Your task to perform on an android device: check the backup settings in the google photos Image 0: 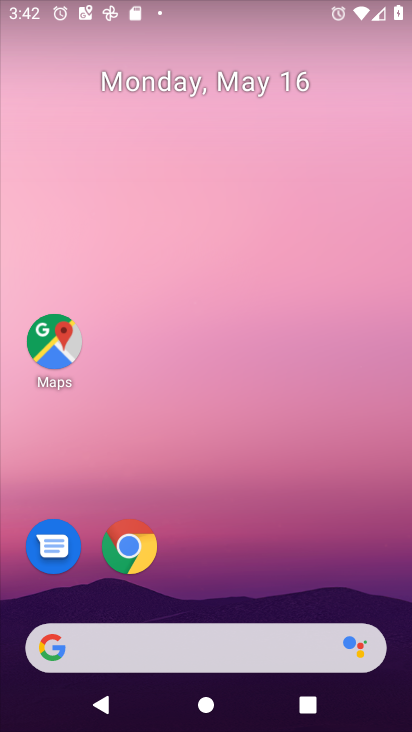
Step 0: drag from (352, 604) to (363, 207)
Your task to perform on an android device: check the backup settings in the google photos Image 1: 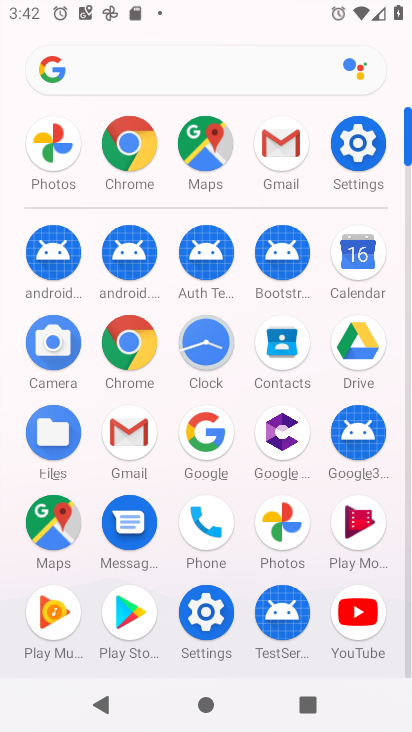
Step 1: click (293, 524)
Your task to perform on an android device: check the backup settings in the google photos Image 2: 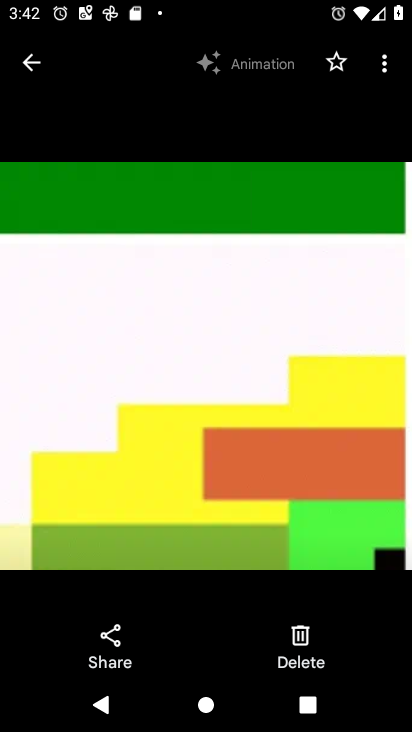
Step 2: click (31, 59)
Your task to perform on an android device: check the backup settings in the google photos Image 3: 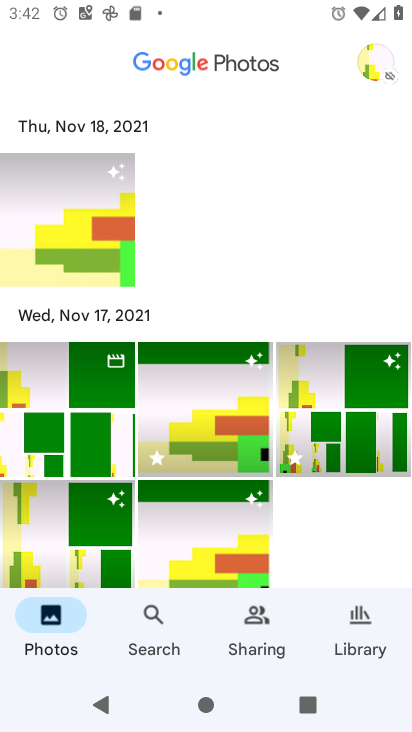
Step 3: click (376, 64)
Your task to perform on an android device: check the backup settings in the google photos Image 4: 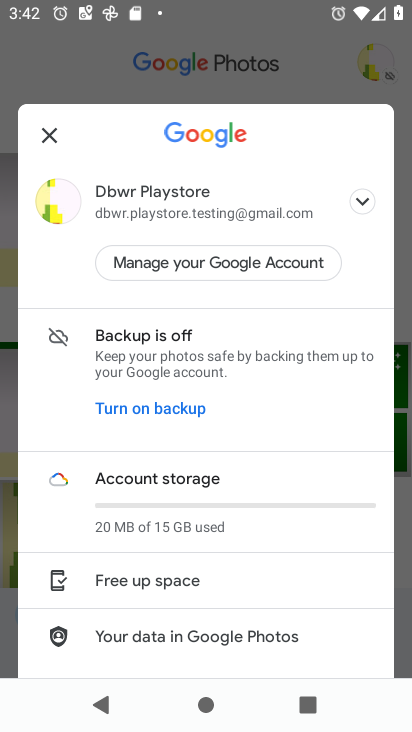
Step 4: drag from (331, 593) to (330, 384)
Your task to perform on an android device: check the backup settings in the google photos Image 5: 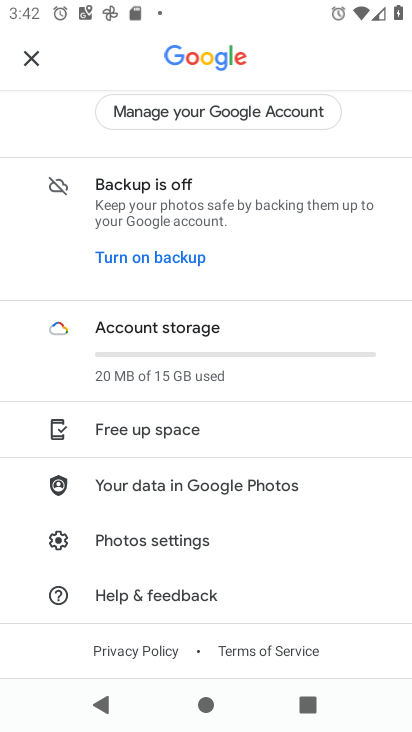
Step 5: drag from (321, 595) to (321, 414)
Your task to perform on an android device: check the backup settings in the google photos Image 6: 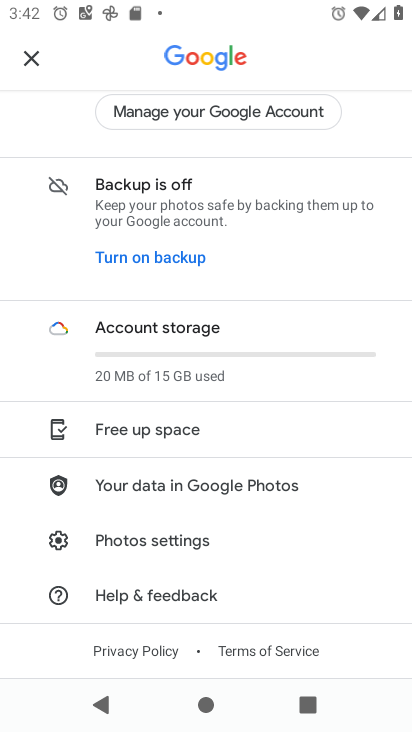
Step 6: click (179, 542)
Your task to perform on an android device: check the backup settings in the google photos Image 7: 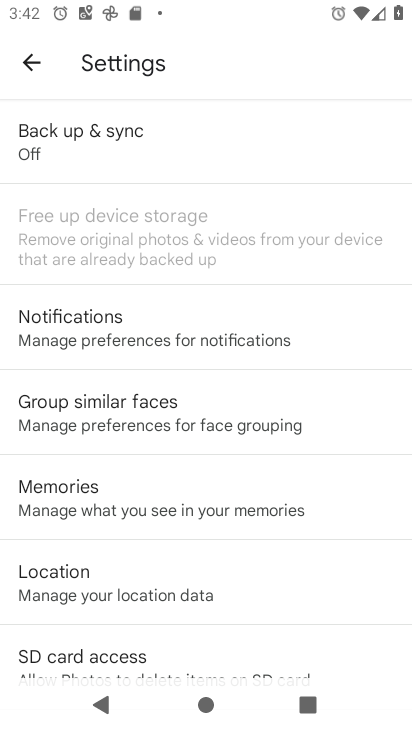
Step 7: drag from (352, 603) to (367, 412)
Your task to perform on an android device: check the backup settings in the google photos Image 8: 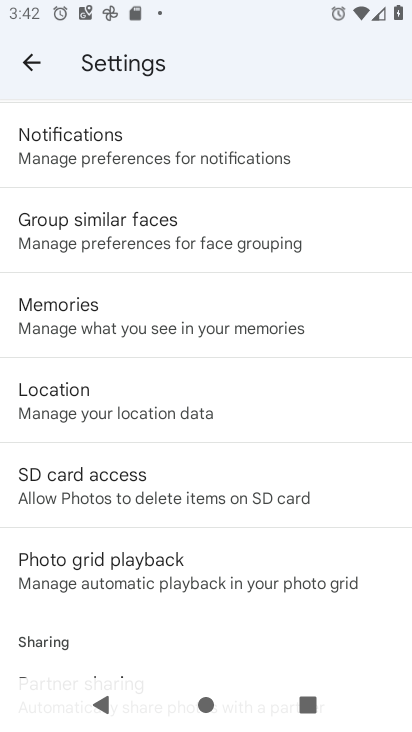
Step 8: drag from (338, 631) to (330, 446)
Your task to perform on an android device: check the backup settings in the google photos Image 9: 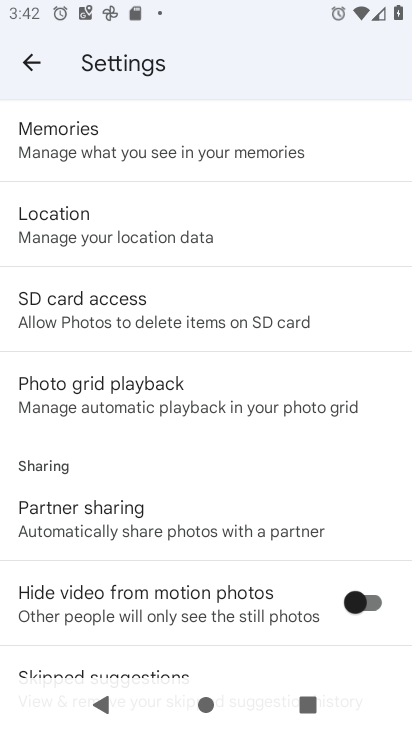
Step 9: drag from (315, 642) to (313, 433)
Your task to perform on an android device: check the backup settings in the google photos Image 10: 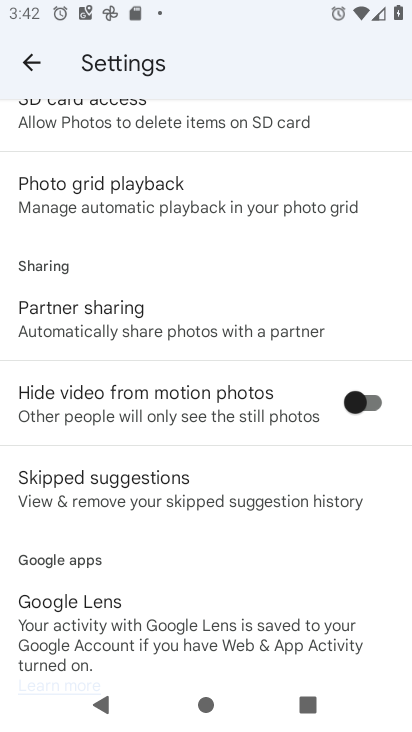
Step 10: drag from (268, 597) to (264, 476)
Your task to perform on an android device: check the backup settings in the google photos Image 11: 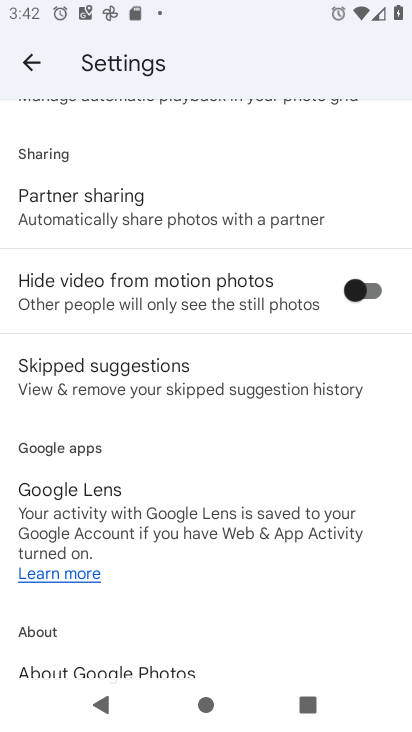
Step 11: drag from (342, 158) to (310, 371)
Your task to perform on an android device: check the backup settings in the google photos Image 12: 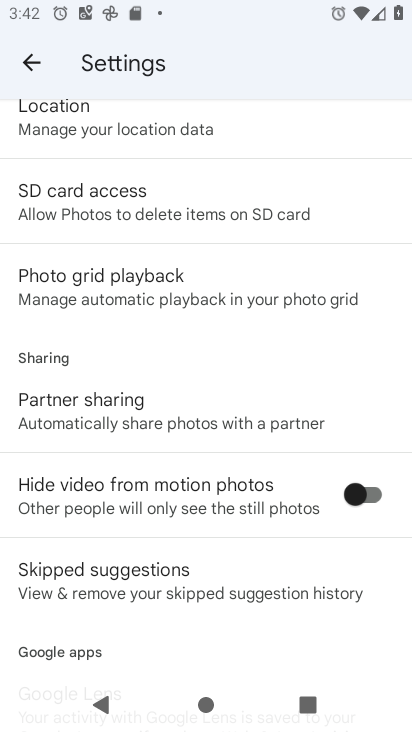
Step 12: drag from (324, 150) to (319, 372)
Your task to perform on an android device: check the backup settings in the google photos Image 13: 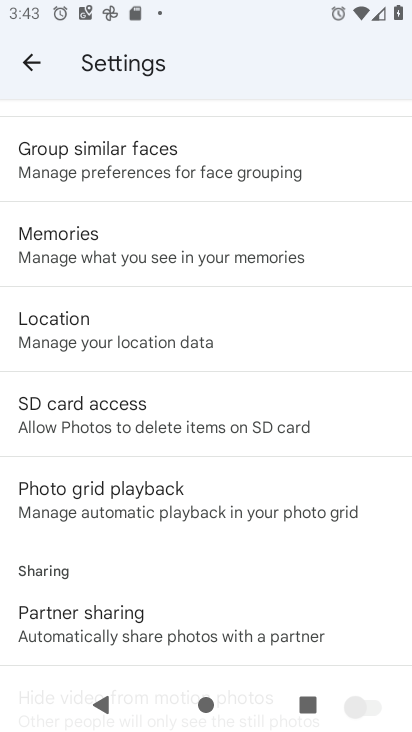
Step 13: drag from (331, 213) to (336, 360)
Your task to perform on an android device: check the backup settings in the google photos Image 14: 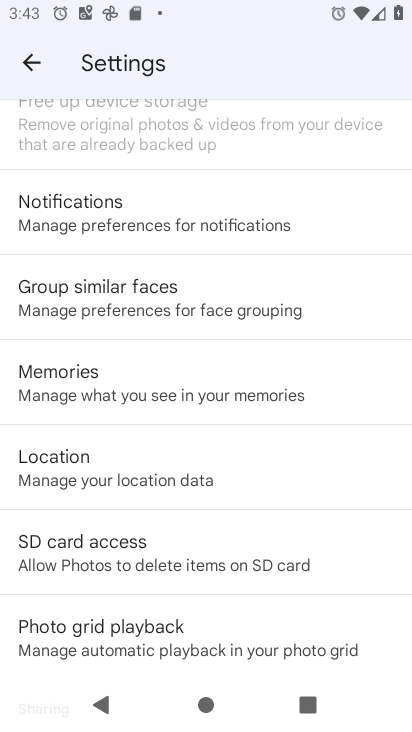
Step 14: drag from (336, 162) to (335, 368)
Your task to perform on an android device: check the backup settings in the google photos Image 15: 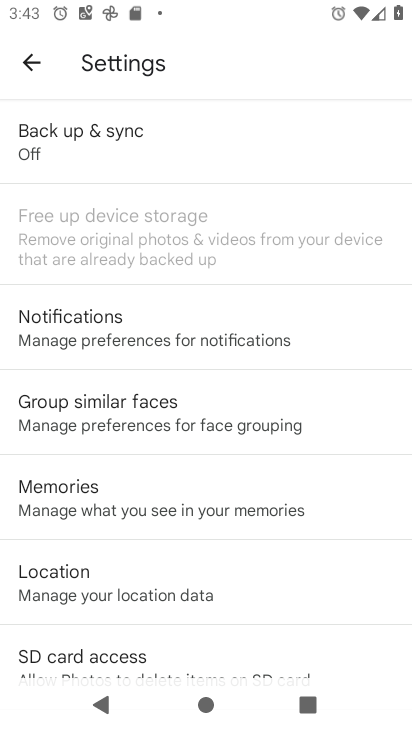
Step 15: click (103, 151)
Your task to perform on an android device: check the backup settings in the google photos Image 16: 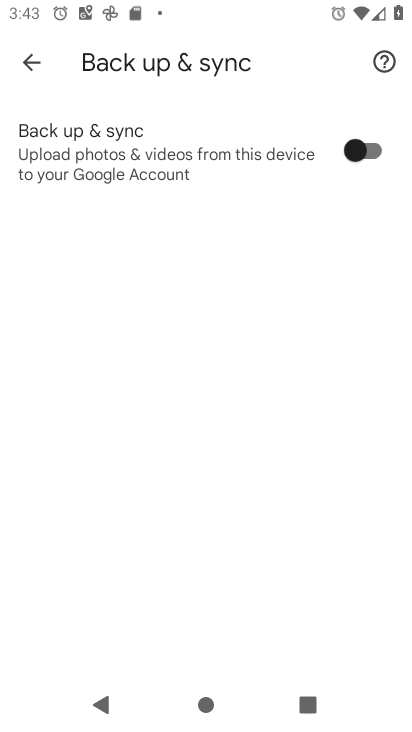
Step 16: task complete